Your task to perform on an android device: Go to Reddit.com Image 0: 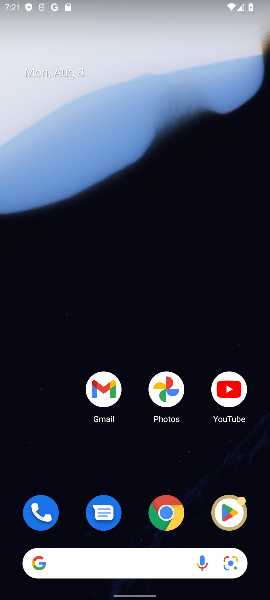
Step 0: click (128, 555)
Your task to perform on an android device: Go to Reddit.com Image 1: 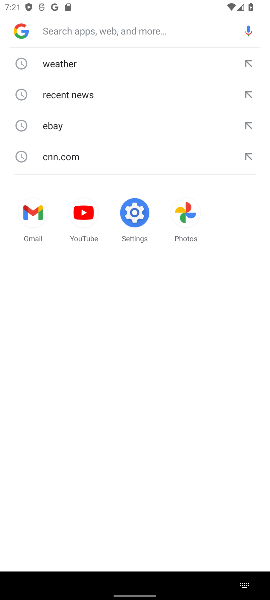
Step 1: type "reddit.com"
Your task to perform on an android device: Go to Reddit.com Image 2: 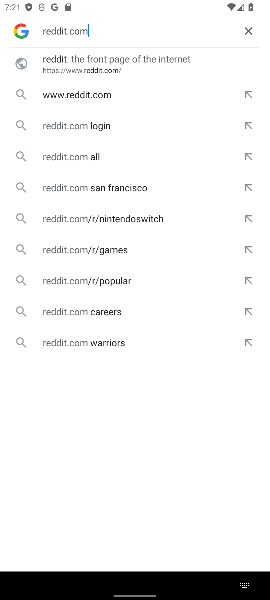
Step 2: click (97, 63)
Your task to perform on an android device: Go to Reddit.com Image 3: 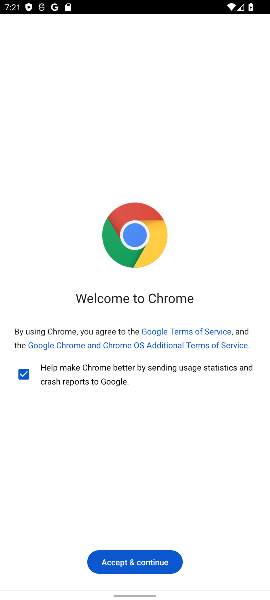
Step 3: click (133, 565)
Your task to perform on an android device: Go to Reddit.com Image 4: 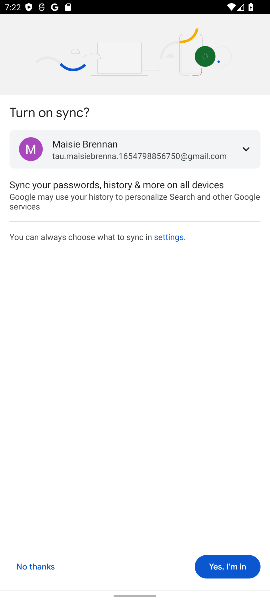
Step 4: click (242, 568)
Your task to perform on an android device: Go to Reddit.com Image 5: 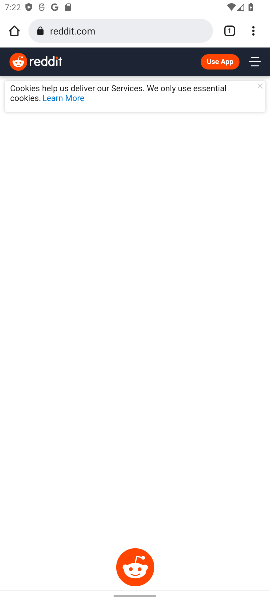
Step 5: task complete